Your task to perform on an android device: toggle wifi Image 0: 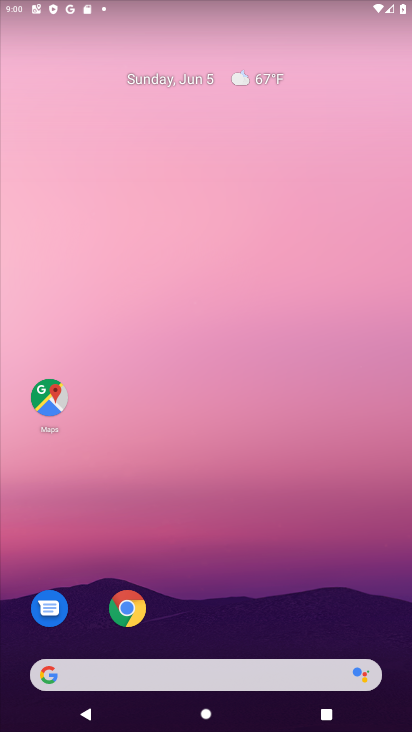
Step 0: drag from (92, 5) to (85, 550)
Your task to perform on an android device: toggle wifi Image 1: 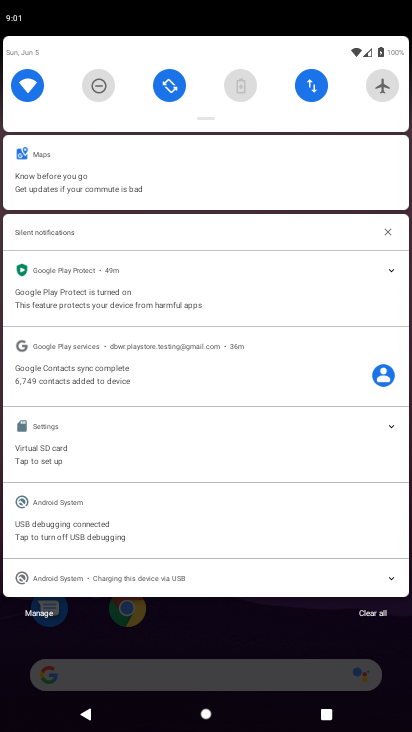
Step 1: click (20, 87)
Your task to perform on an android device: toggle wifi Image 2: 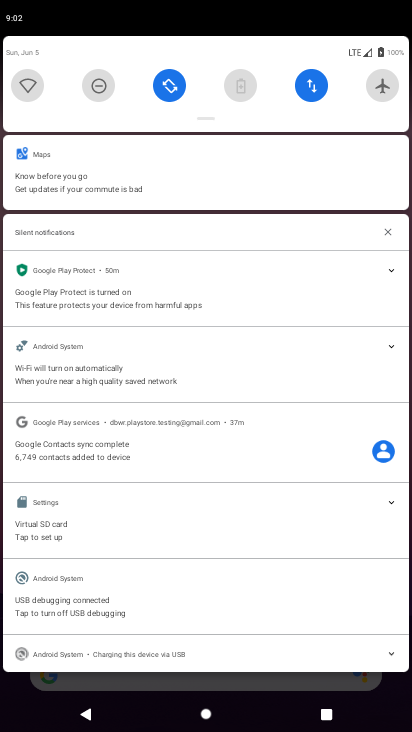
Step 2: task complete